Your task to perform on an android device: Go to Yahoo.com Image 0: 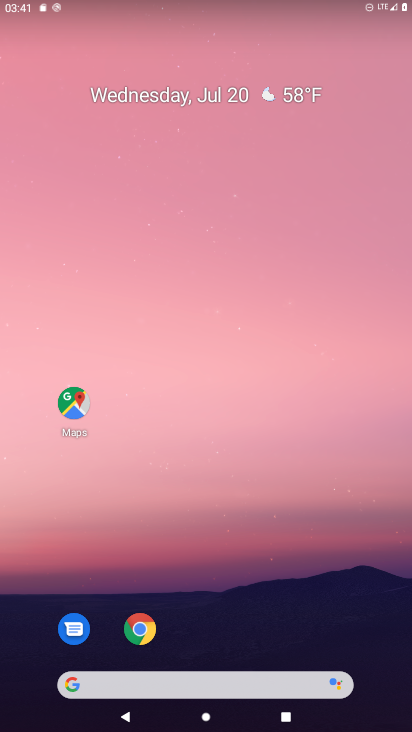
Step 0: drag from (219, 609) to (288, 2)
Your task to perform on an android device: Go to Yahoo.com Image 1: 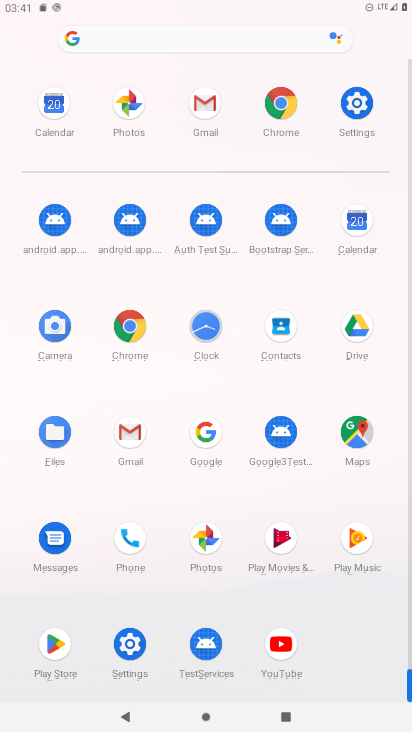
Step 1: click (279, 112)
Your task to perform on an android device: Go to Yahoo.com Image 2: 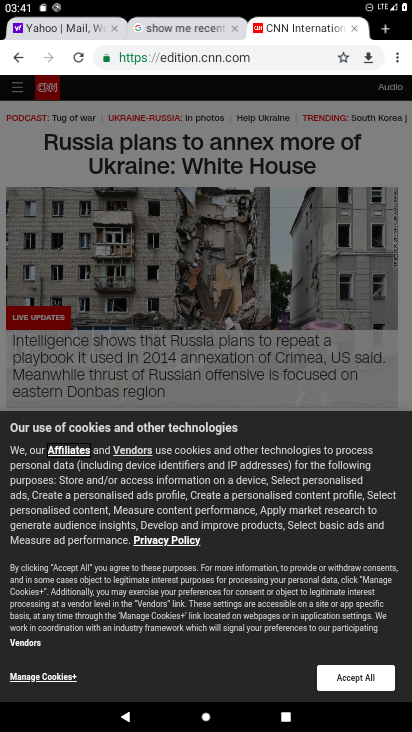
Step 2: click (196, 43)
Your task to perform on an android device: Go to Yahoo.com Image 3: 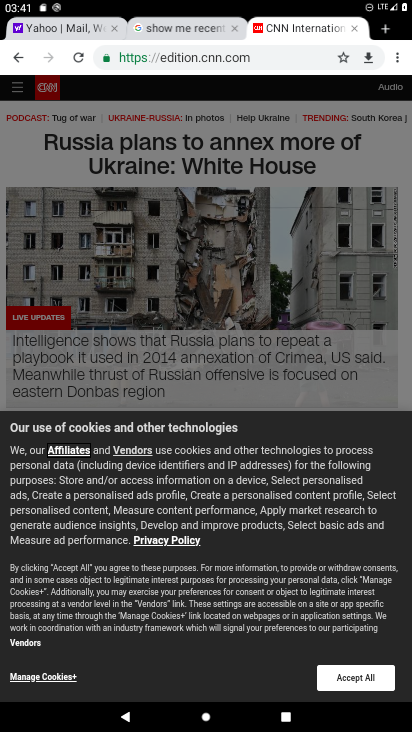
Step 3: click (198, 51)
Your task to perform on an android device: Go to Yahoo.com Image 4: 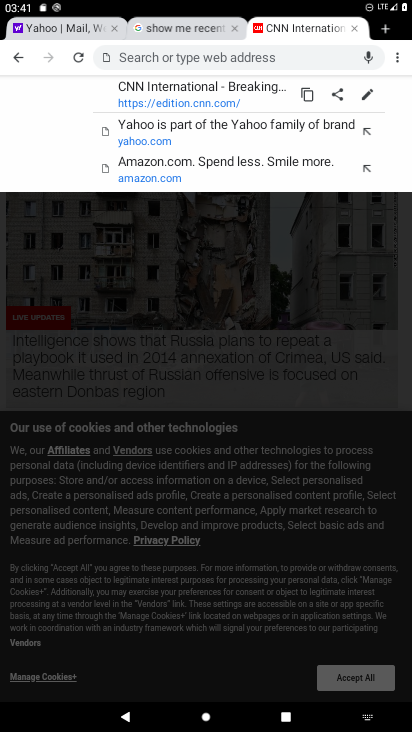
Step 4: type " Yahoo.com"
Your task to perform on an android device: Go to Yahoo.com Image 5: 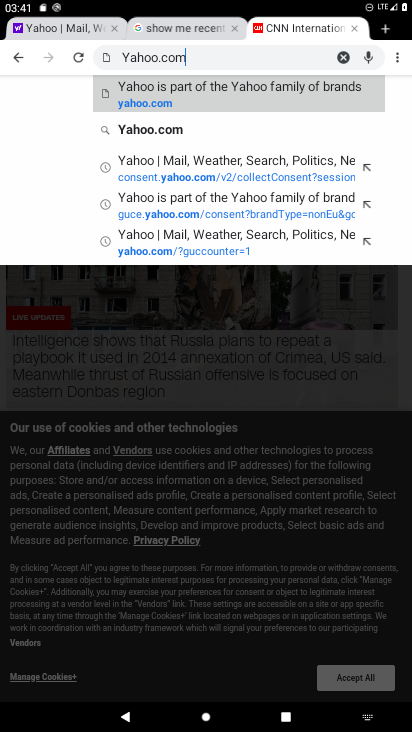
Step 5: type ""
Your task to perform on an android device: Go to Yahoo.com Image 6: 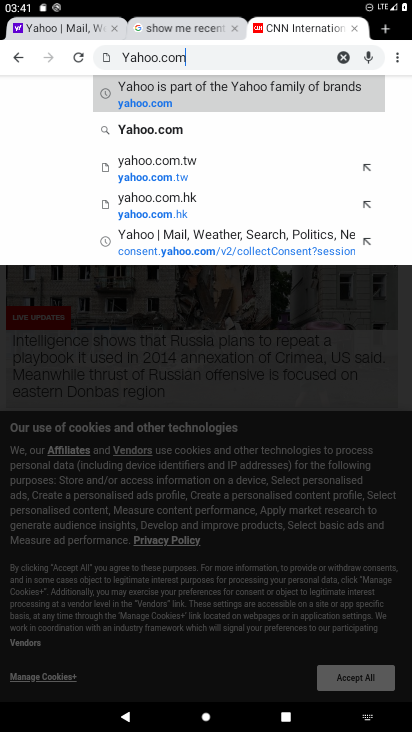
Step 6: click (155, 88)
Your task to perform on an android device: Go to Yahoo.com Image 7: 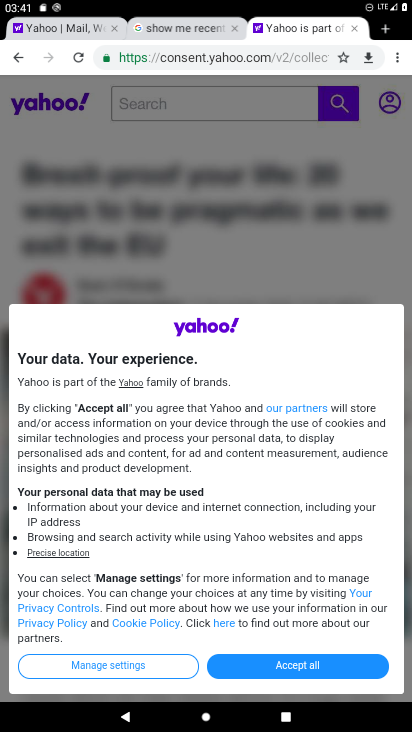
Step 7: task complete